Your task to perform on an android device: Open battery settings Image 0: 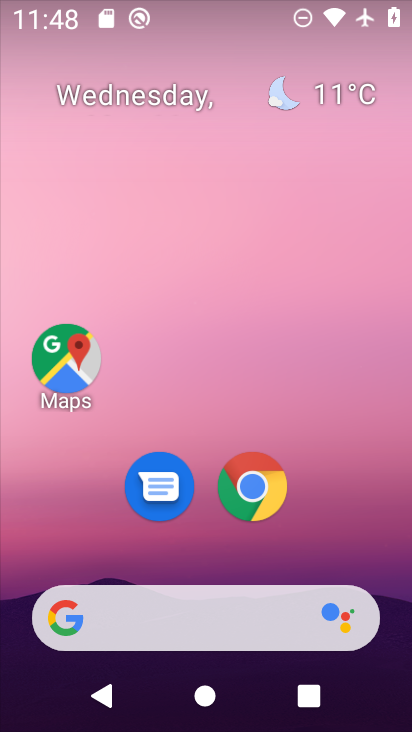
Step 0: drag from (343, 541) to (253, 19)
Your task to perform on an android device: Open battery settings Image 1: 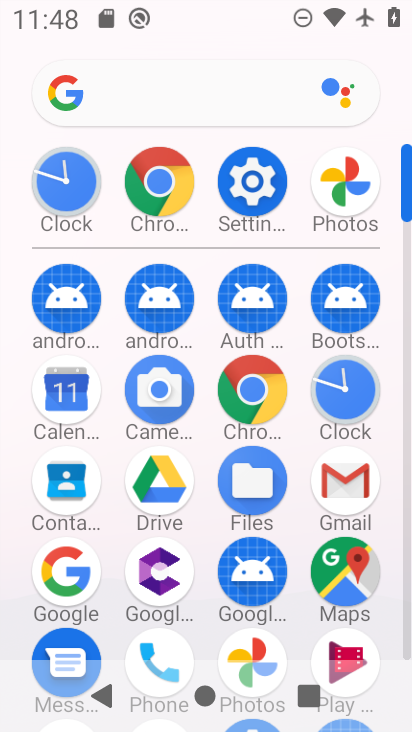
Step 1: drag from (7, 574) to (11, 325)
Your task to perform on an android device: Open battery settings Image 2: 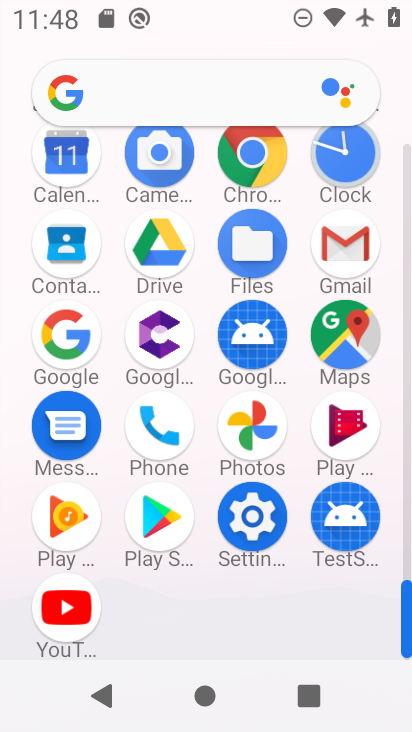
Step 2: click (250, 515)
Your task to perform on an android device: Open battery settings Image 3: 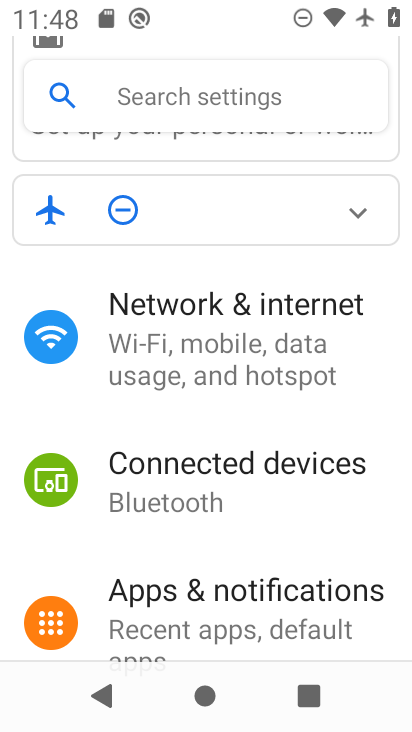
Step 3: drag from (288, 478) to (290, 166)
Your task to perform on an android device: Open battery settings Image 4: 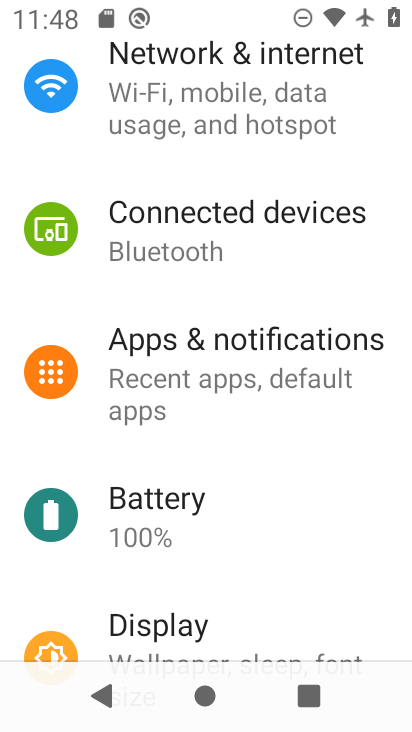
Step 4: drag from (200, 493) to (257, 149)
Your task to perform on an android device: Open battery settings Image 5: 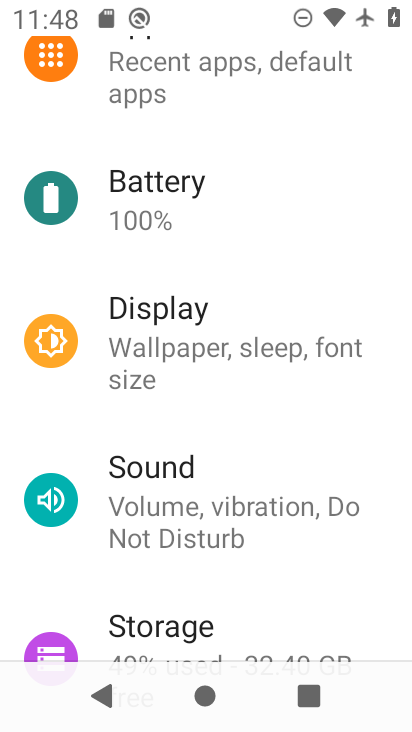
Step 5: click (207, 181)
Your task to perform on an android device: Open battery settings Image 6: 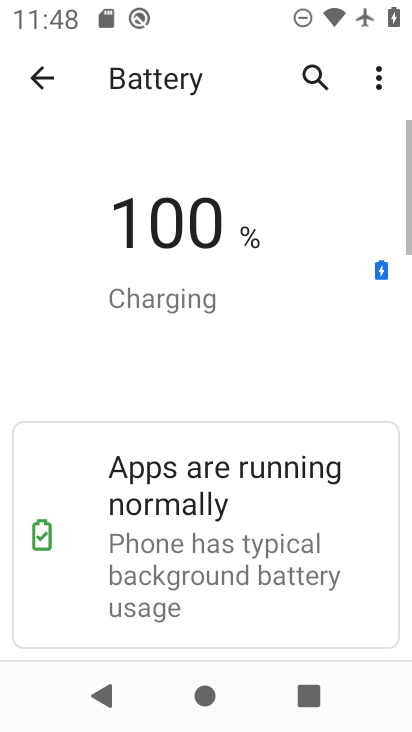
Step 6: task complete